Your task to perform on an android device: Go to settings Image 0: 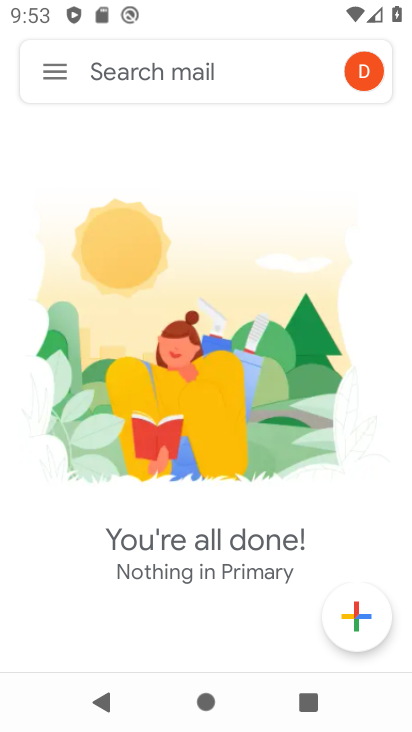
Step 0: press home button
Your task to perform on an android device: Go to settings Image 1: 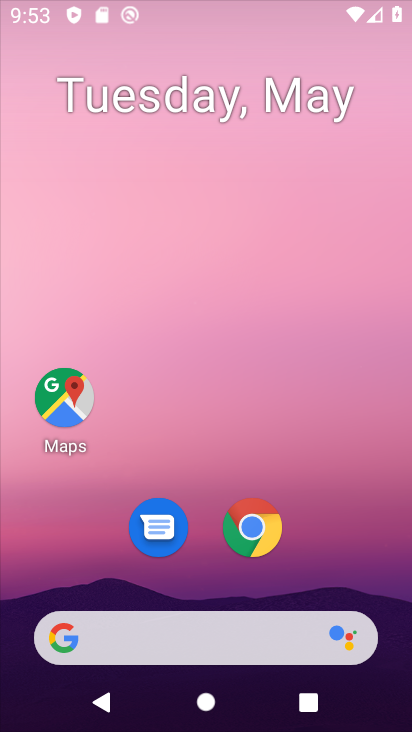
Step 1: drag from (215, 567) to (205, 33)
Your task to perform on an android device: Go to settings Image 2: 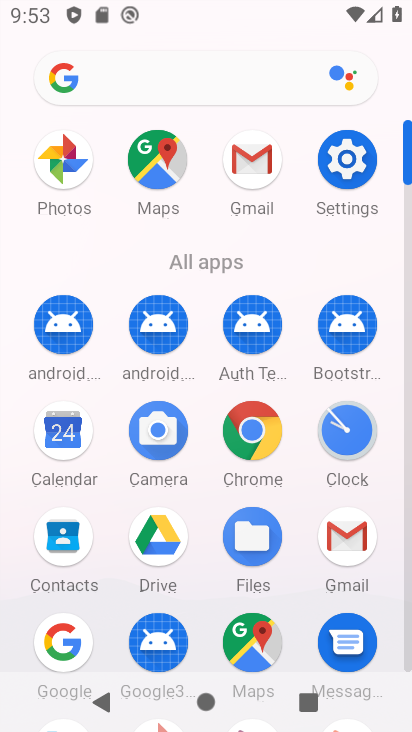
Step 2: click (348, 160)
Your task to perform on an android device: Go to settings Image 3: 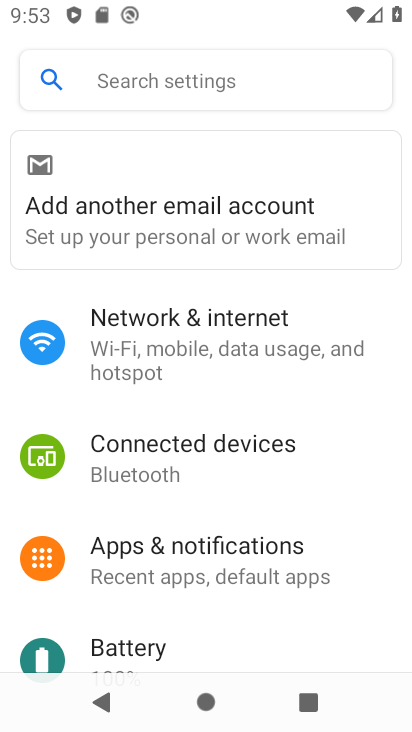
Step 3: task complete